Your task to perform on an android device: Open ESPN.com Image 0: 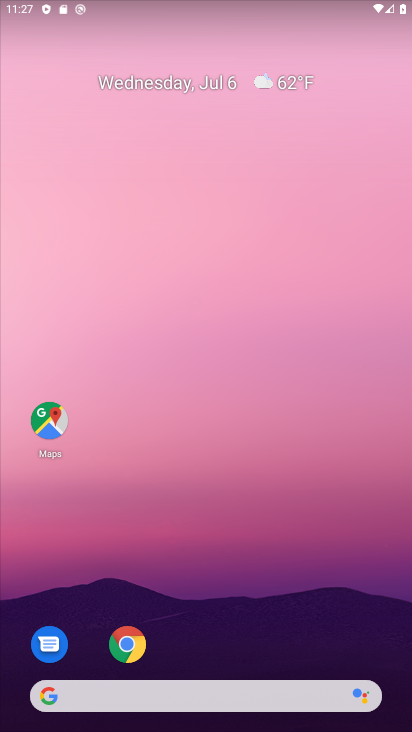
Step 0: drag from (177, 630) to (253, 68)
Your task to perform on an android device: Open ESPN.com Image 1: 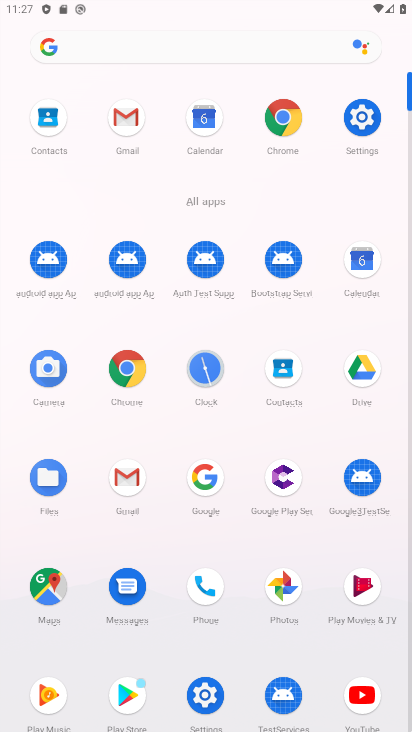
Step 1: click (125, 385)
Your task to perform on an android device: Open ESPN.com Image 2: 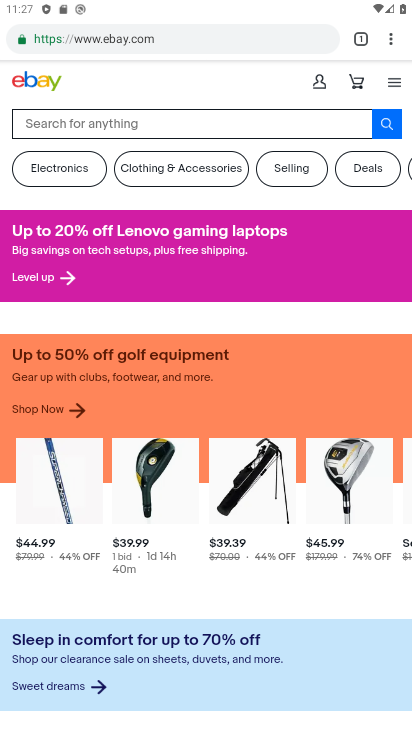
Step 2: click (366, 40)
Your task to perform on an android device: Open ESPN.com Image 3: 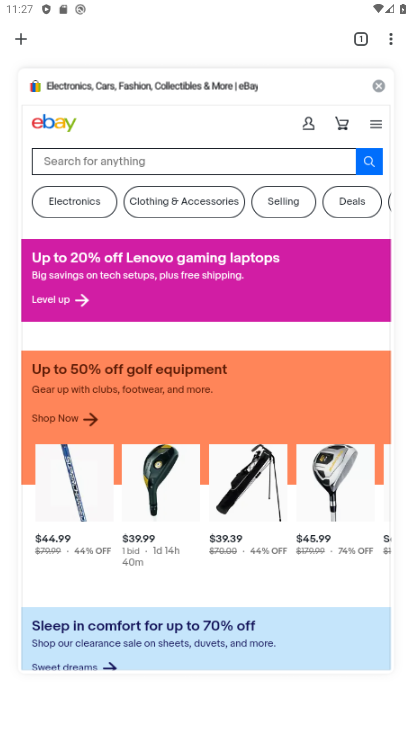
Step 3: click (21, 40)
Your task to perform on an android device: Open ESPN.com Image 4: 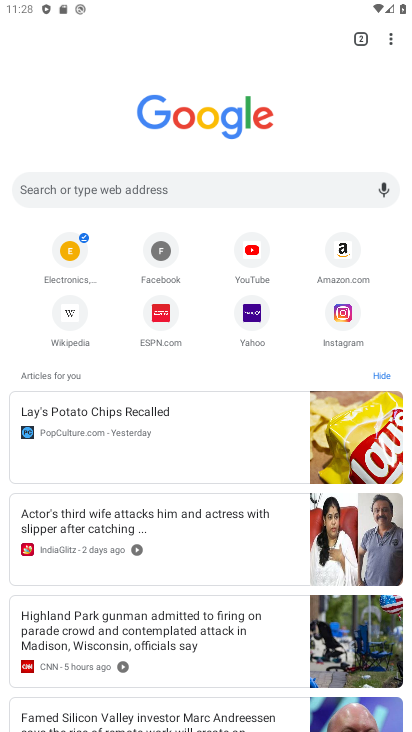
Step 4: click (142, 183)
Your task to perform on an android device: Open ESPN.com Image 5: 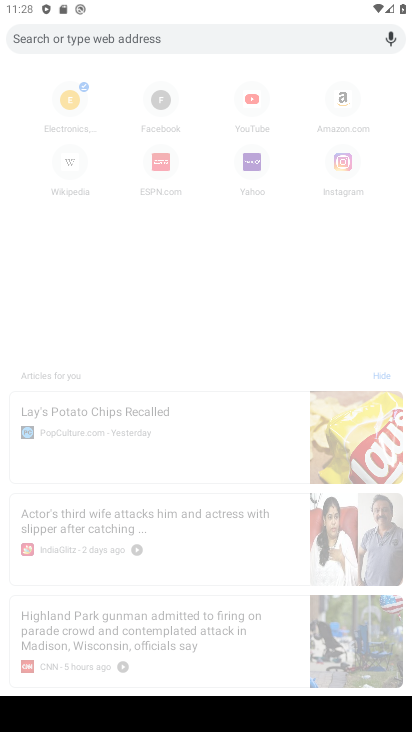
Step 5: type "ESPN.com"
Your task to perform on an android device: Open ESPN.com Image 6: 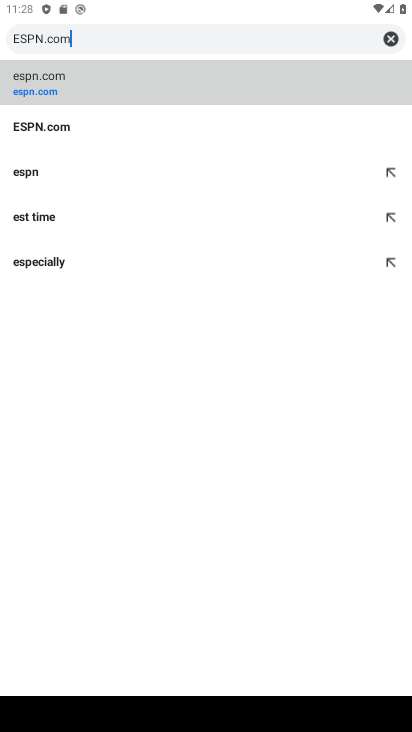
Step 6: type ""
Your task to perform on an android device: Open ESPN.com Image 7: 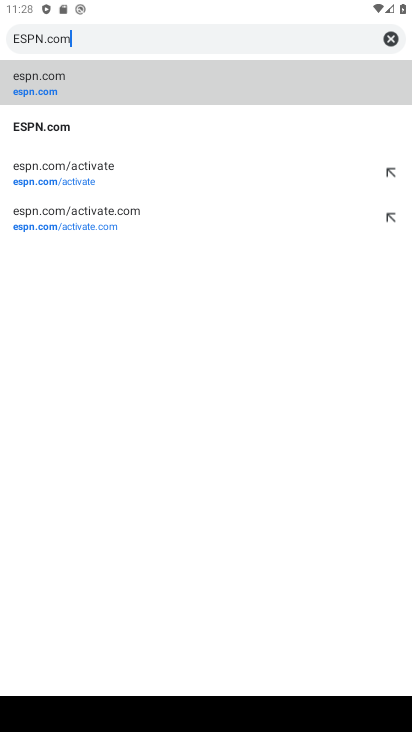
Step 7: click (128, 96)
Your task to perform on an android device: Open ESPN.com Image 8: 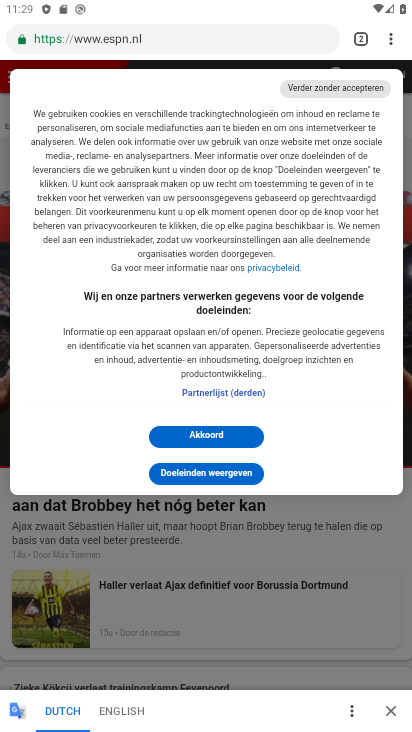
Step 8: click (308, 553)
Your task to perform on an android device: Open ESPN.com Image 9: 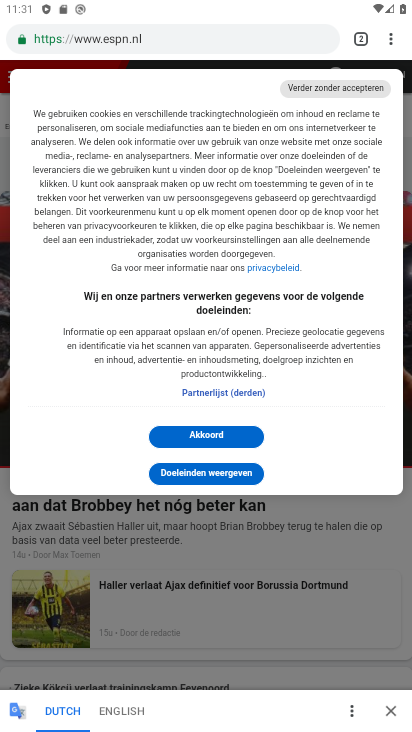
Step 9: click (297, 607)
Your task to perform on an android device: Open ESPN.com Image 10: 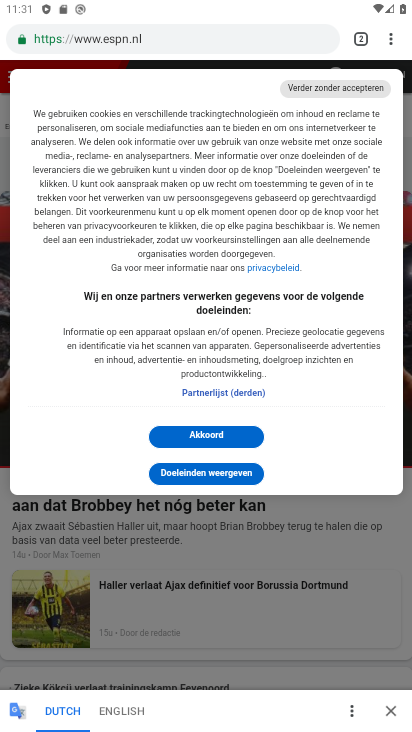
Step 10: click (249, 595)
Your task to perform on an android device: Open ESPN.com Image 11: 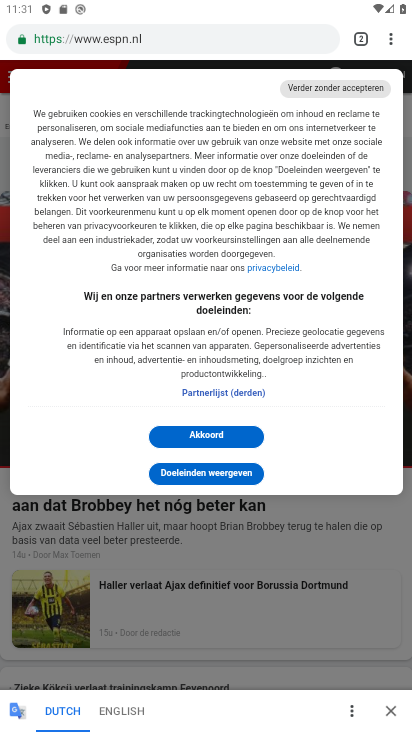
Step 11: click (310, 580)
Your task to perform on an android device: Open ESPN.com Image 12: 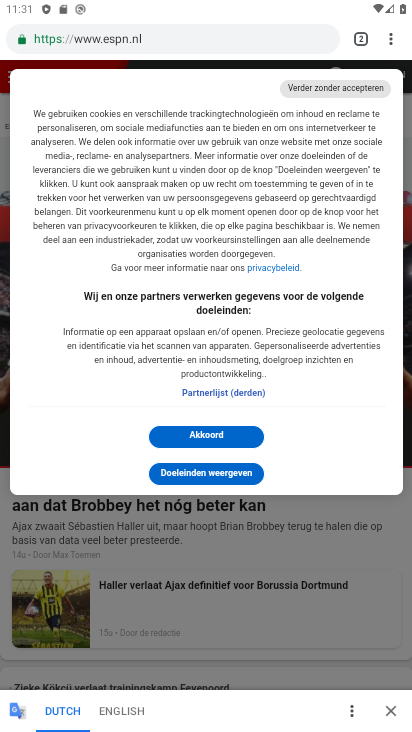
Step 12: task complete